Your task to perform on an android device: Search for pizza restaurants on Maps Image 0: 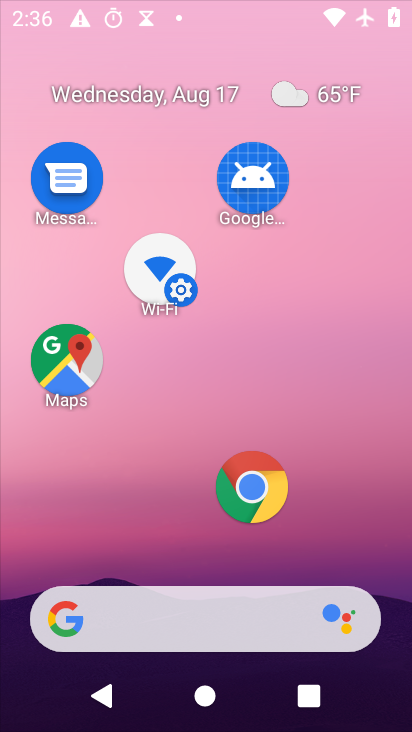
Step 0: press home button
Your task to perform on an android device: Search for pizza restaurants on Maps Image 1: 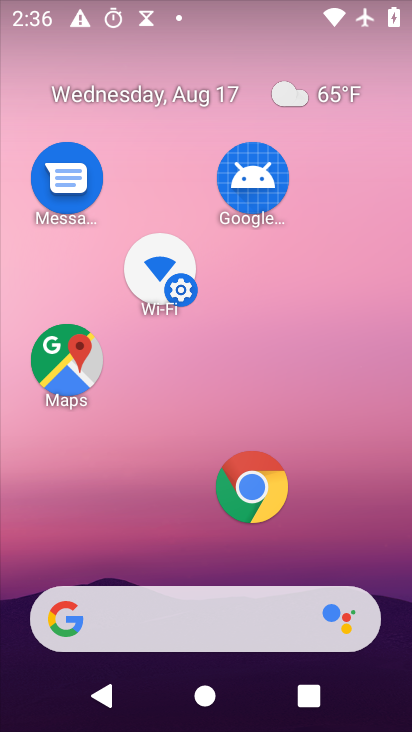
Step 1: click (72, 365)
Your task to perform on an android device: Search for pizza restaurants on Maps Image 2: 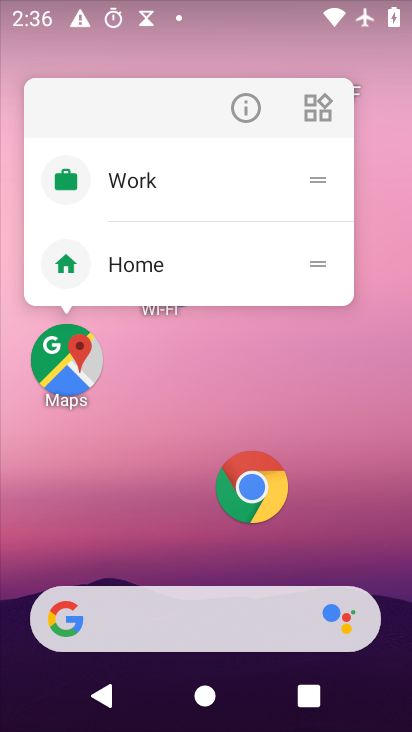
Step 2: click (46, 365)
Your task to perform on an android device: Search for pizza restaurants on Maps Image 3: 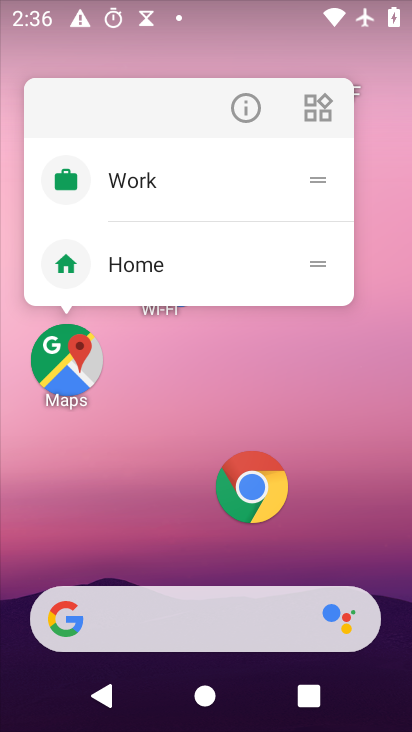
Step 3: click (37, 365)
Your task to perform on an android device: Search for pizza restaurants on Maps Image 4: 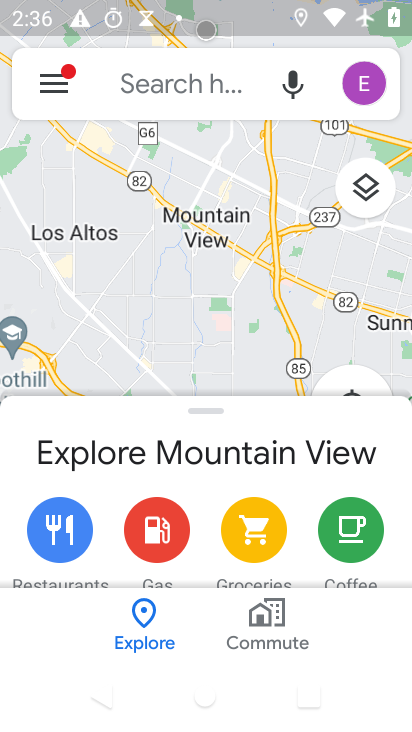
Step 4: click (190, 82)
Your task to perform on an android device: Search for pizza restaurants on Maps Image 5: 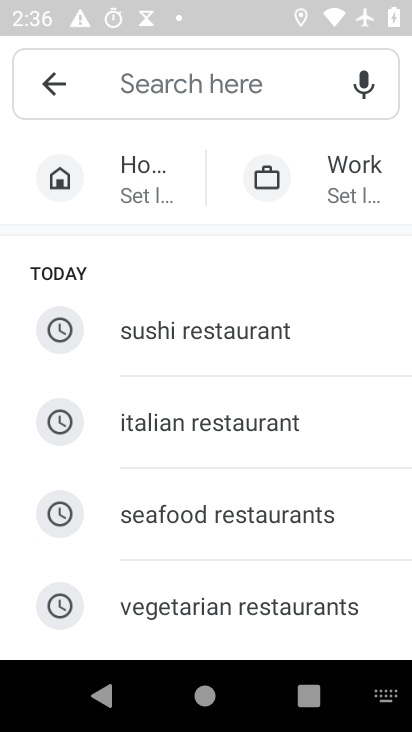
Step 5: drag from (337, 587) to (322, 188)
Your task to perform on an android device: Search for pizza restaurants on Maps Image 6: 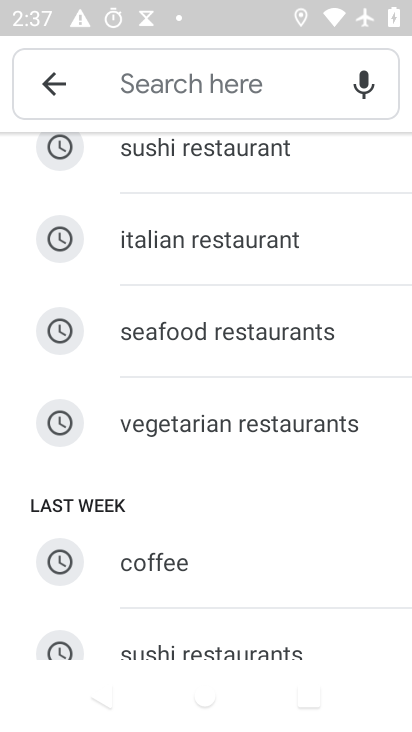
Step 6: type " pizza restaurants"
Your task to perform on an android device: Search for pizza restaurants on Maps Image 7: 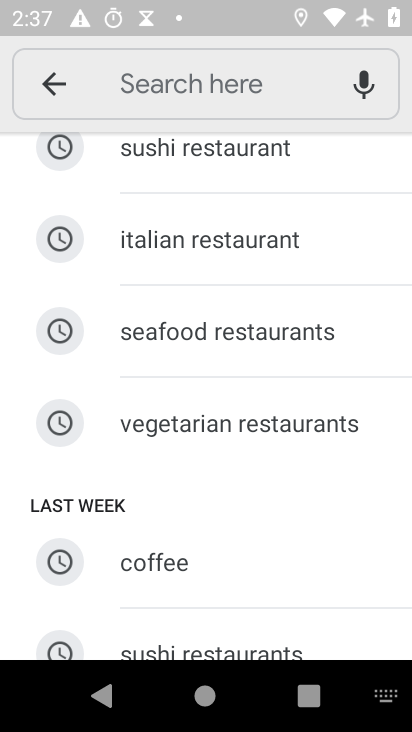
Step 7: press enter
Your task to perform on an android device: Search for pizza restaurants on Maps Image 8: 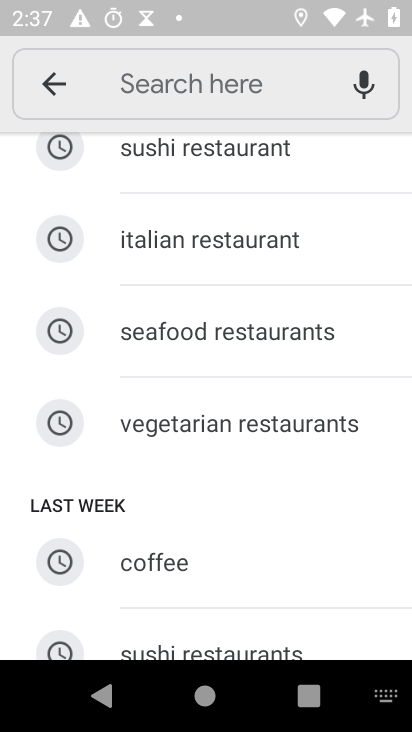
Step 8: click (213, 96)
Your task to perform on an android device: Search for pizza restaurants on Maps Image 9: 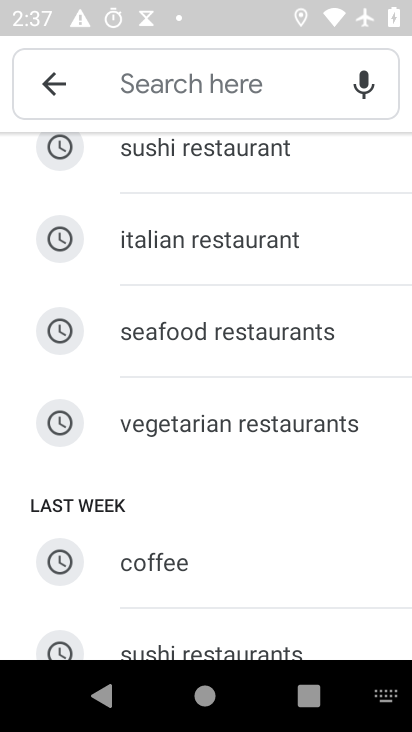
Step 9: type " pizza restaurants"
Your task to perform on an android device: Search for pizza restaurants on Maps Image 10: 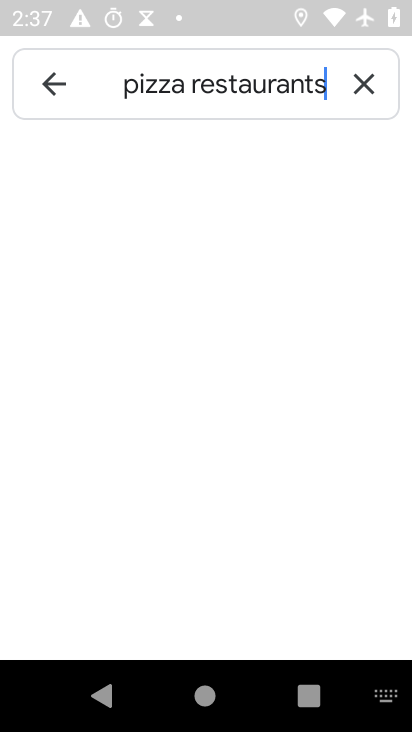
Step 10: press enter
Your task to perform on an android device: Search for pizza restaurants on Maps Image 11: 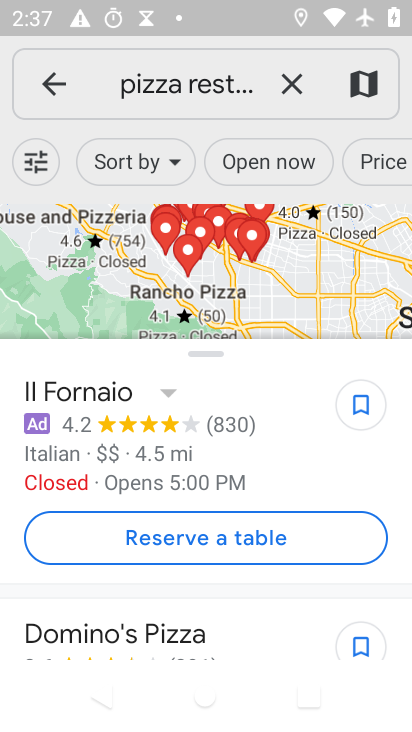
Step 11: task complete